Your task to perform on an android device: Open sound settings Image 0: 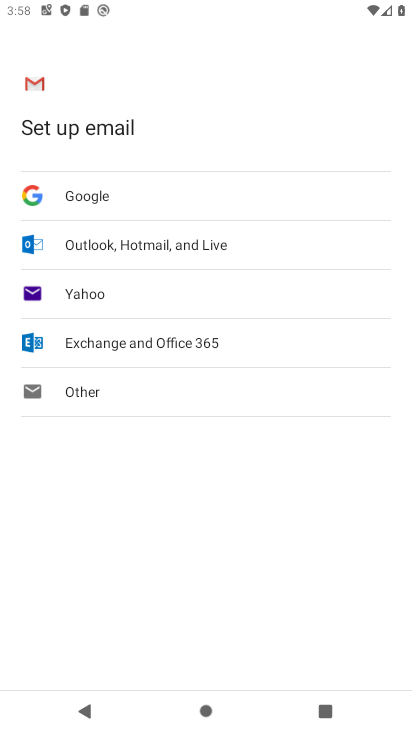
Step 0: press home button
Your task to perform on an android device: Open sound settings Image 1: 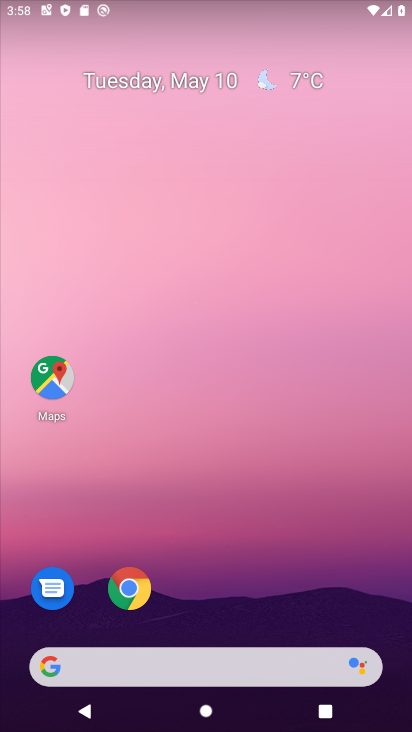
Step 1: drag from (352, 579) to (299, 1)
Your task to perform on an android device: Open sound settings Image 2: 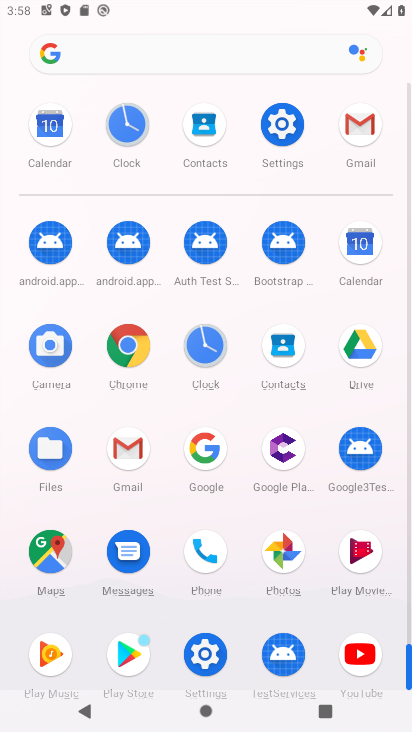
Step 2: click (195, 656)
Your task to perform on an android device: Open sound settings Image 3: 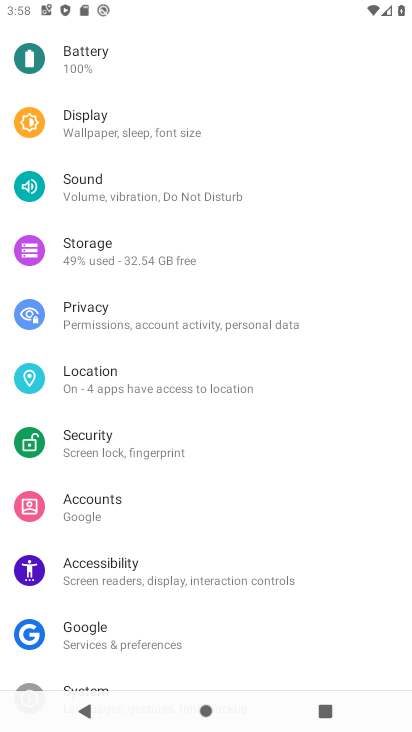
Step 3: drag from (89, 71) to (130, 247)
Your task to perform on an android device: Open sound settings Image 4: 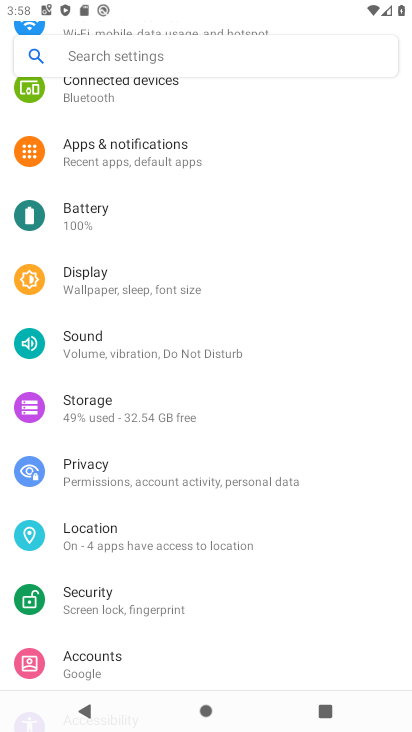
Step 4: click (109, 357)
Your task to perform on an android device: Open sound settings Image 5: 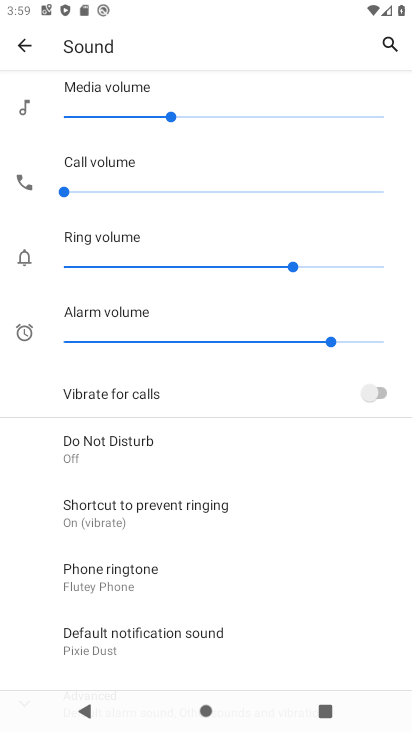
Step 5: task complete